Your task to perform on an android device: turn off sleep mode Image 0: 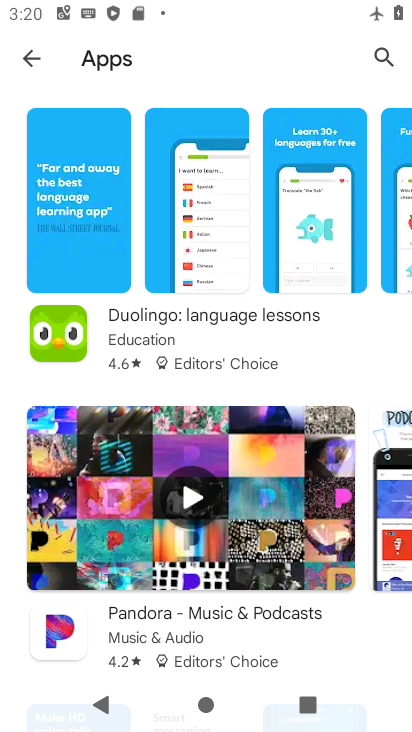
Step 0: press home button
Your task to perform on an android device: turn off sleep mode Image 1: 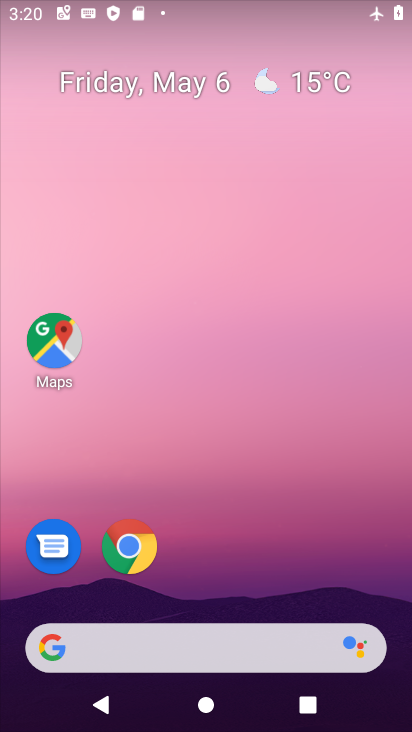
Step 1: drag from (314, 561) to (230, 229)
Your task to perform on an android device: turn off sleep mode Image 2: 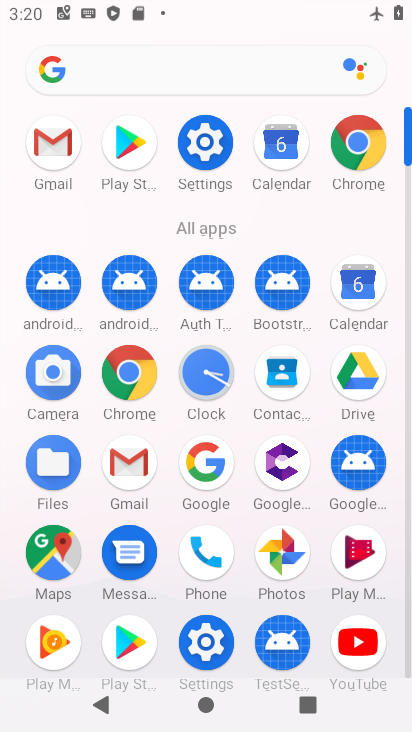
Step 2: click (212, 145)
Your task to perform on an android device: turn off sleep mode Image 3: 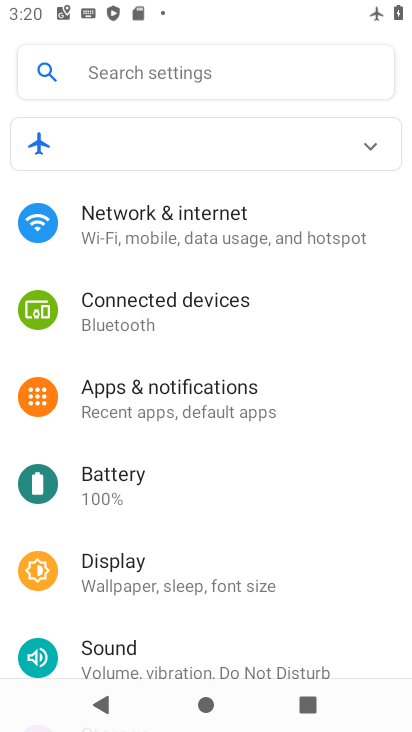
Step 3: click (219, 567)
Your task to perform on an android device: turn off sleep mode Image 4: 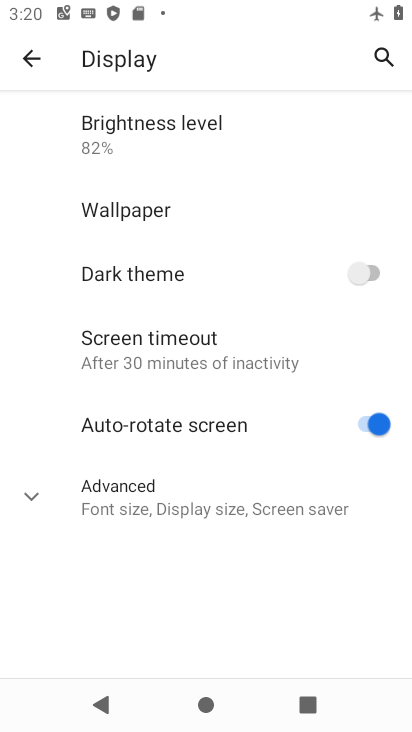
Step 4: click (237, 510)
Your task to perform on an android device: turn off sleep mode Image 5: 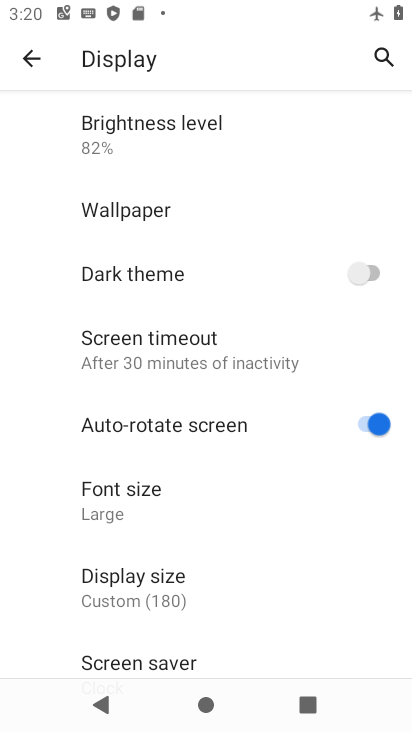
Step 5: task complete